Your task to perform on an android device: change the clock style Image 0: 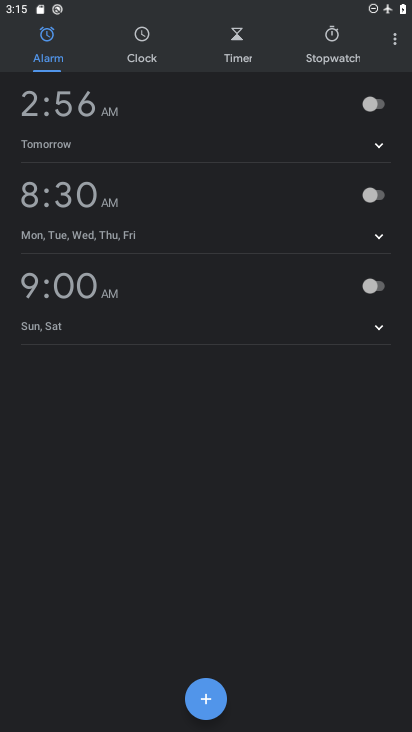
Step 0: press home button
Your task to perform on an android device: change the clock style Image 1: 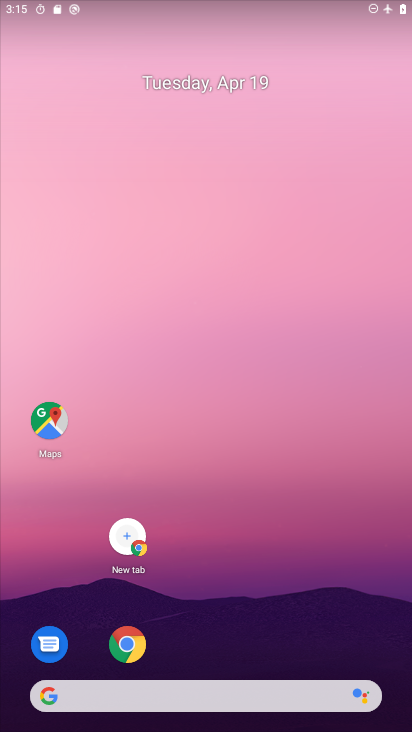
Step 1: drag from (219, 634) to (183, 107)
Your task to perform on an android device: change the clock style Image 2: 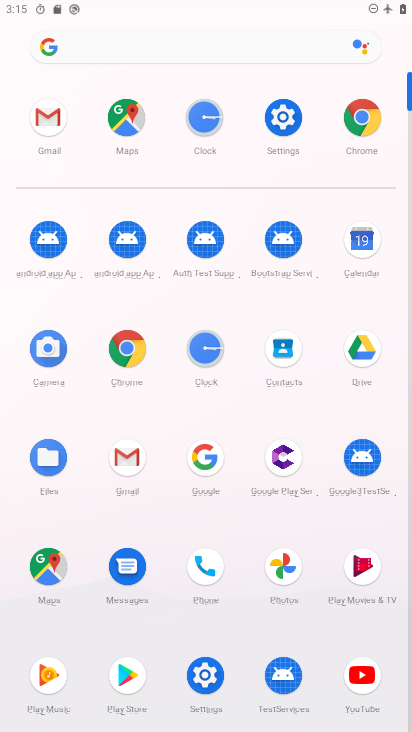
Step 2: click (207, 123)
Your task to perform on an android device: change the clock style Image 3: 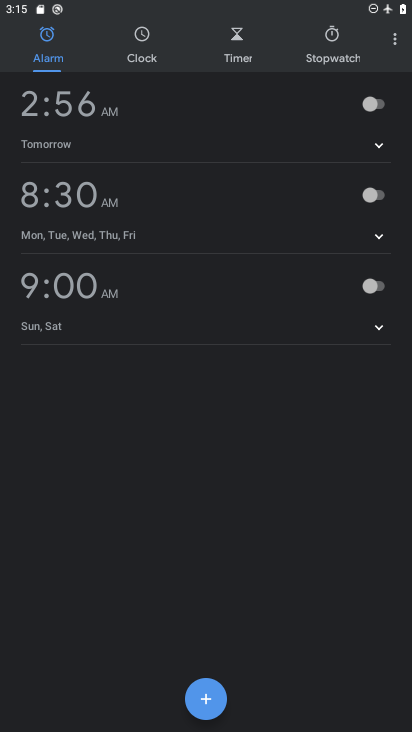
Step 3: click (399, 39)
Your task to perform on an android device: change the clock style Image 4: 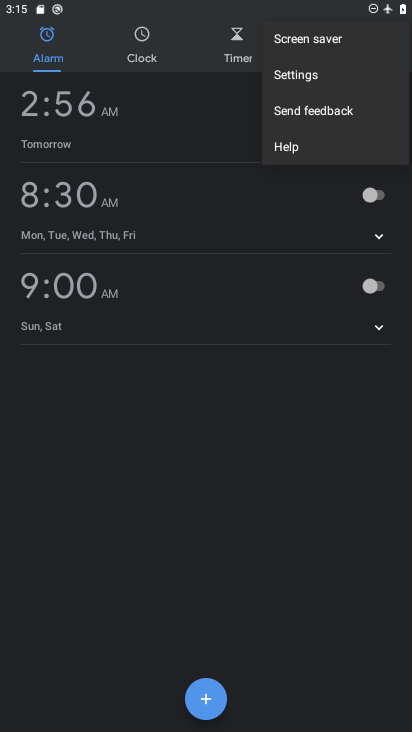
Step 4: click (302, 79)
Your task to perform on an android device: change the clock style Image 5: 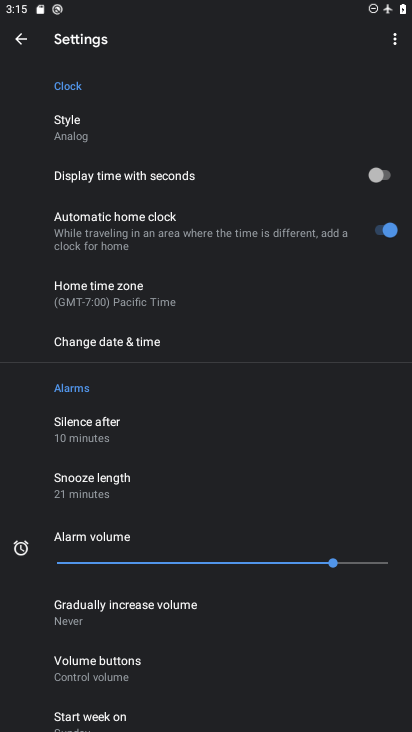
Step 5: click (68, 138)
Your task to perform on an android device: change the clock style Image 6: 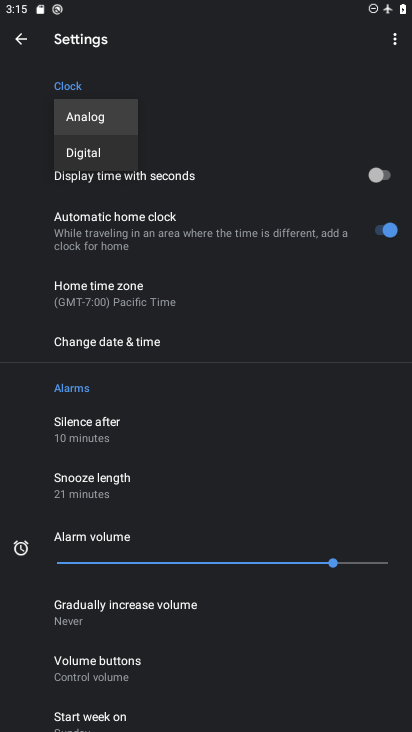
Step 6: click (86, 154)
Your task to perform on an android device: change the clock style Image 7: 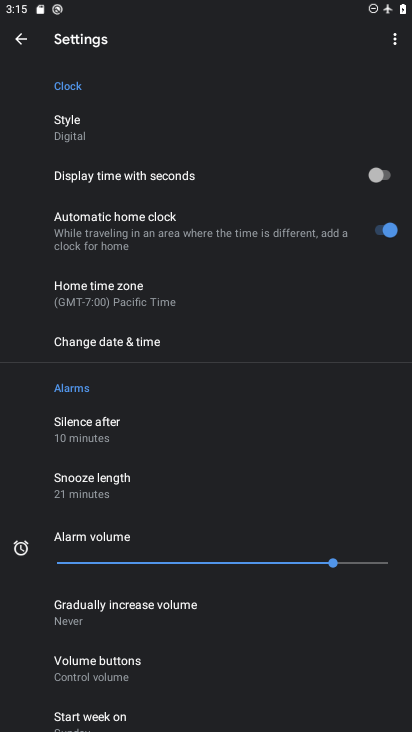
Step 7: task complete